Your task to perform on an android device: install app "Instagram" Image 0: 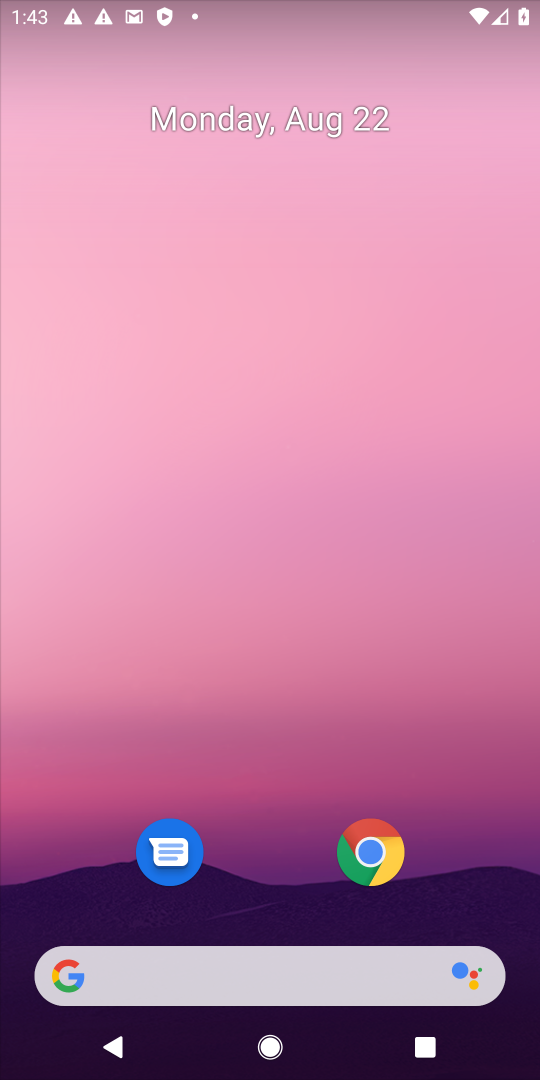
Step 0: drag from (307, 971) to (303, 12)
Your task to perform on an android device: install app "Instagram" Image 1: 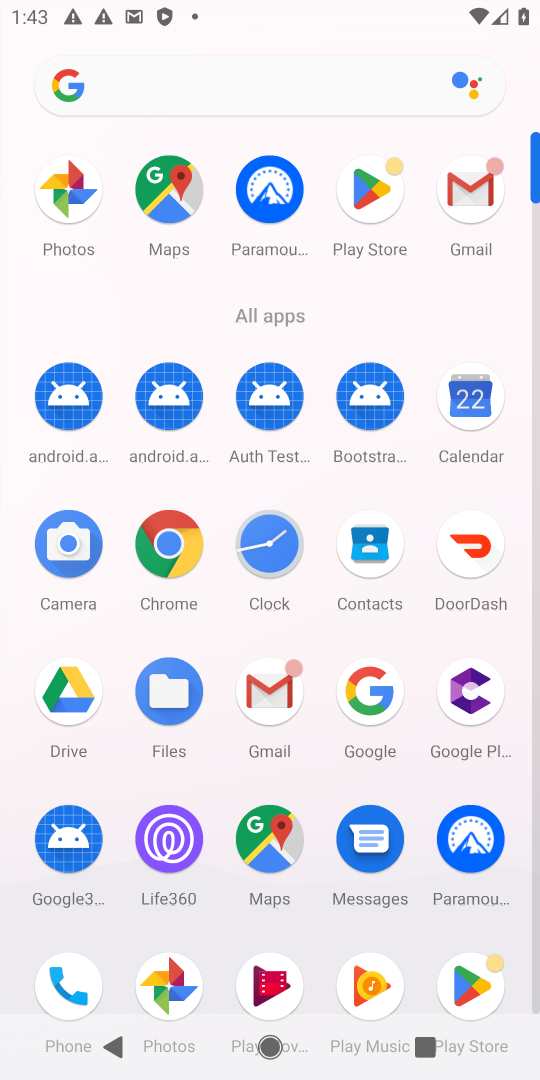
Step 1: click (364, 213)
Your task to perform on an android device: install app "Instagram" Image 2: 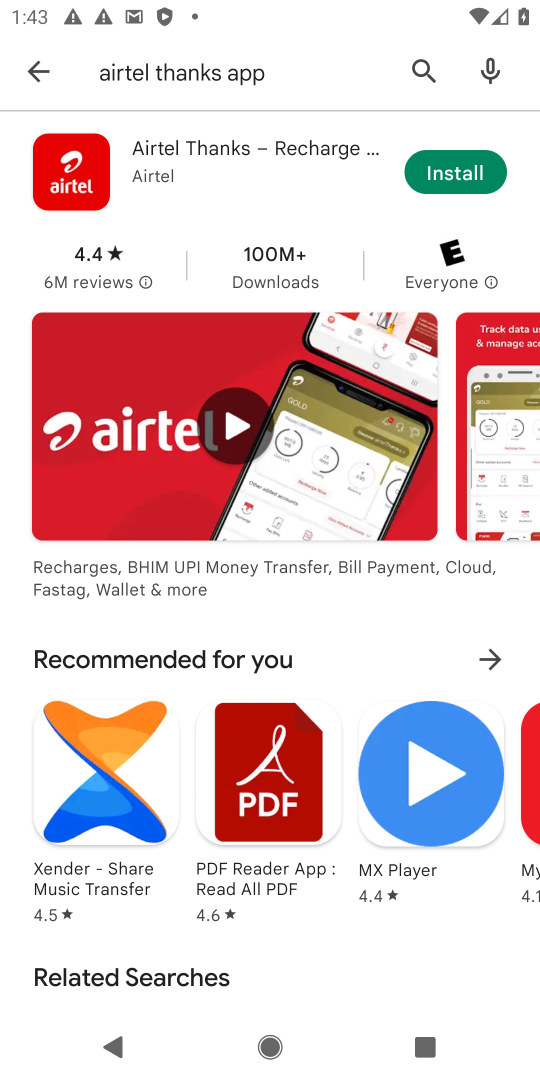
Step 2: click (428, 73)
Your task to perform on an android device: install app "Instagram" Image 3: 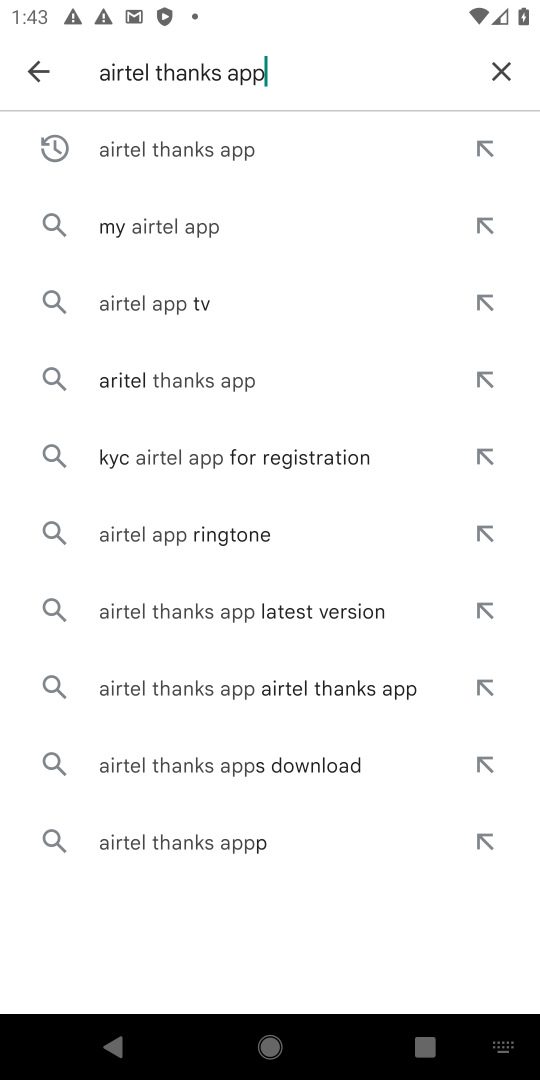
Step 3: click (520, 73)
Your task to perform on an android device: install app "Instagram" Image 4: 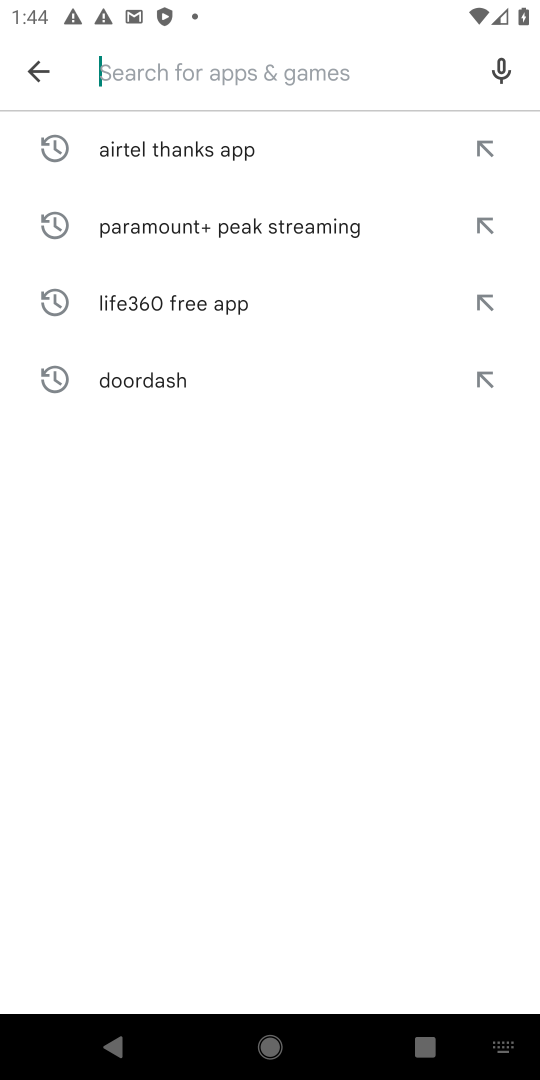
Step 4: type "instagram"
Your task to perform on an android device: install app "Instagram" Image 5: 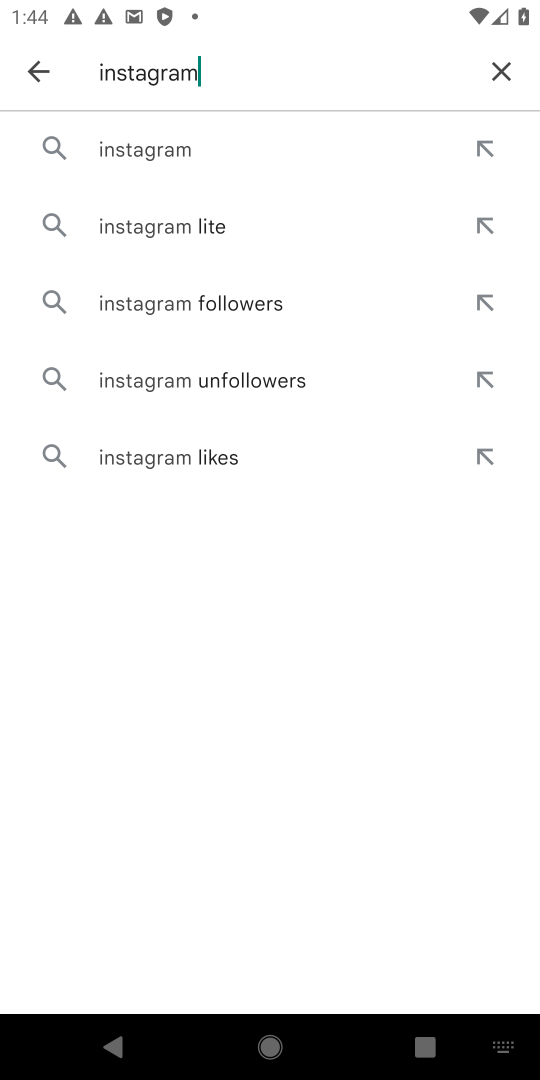
Step 5: click (163, 142)
Your task to perform on an android device: install app "Instagram" Image 6: 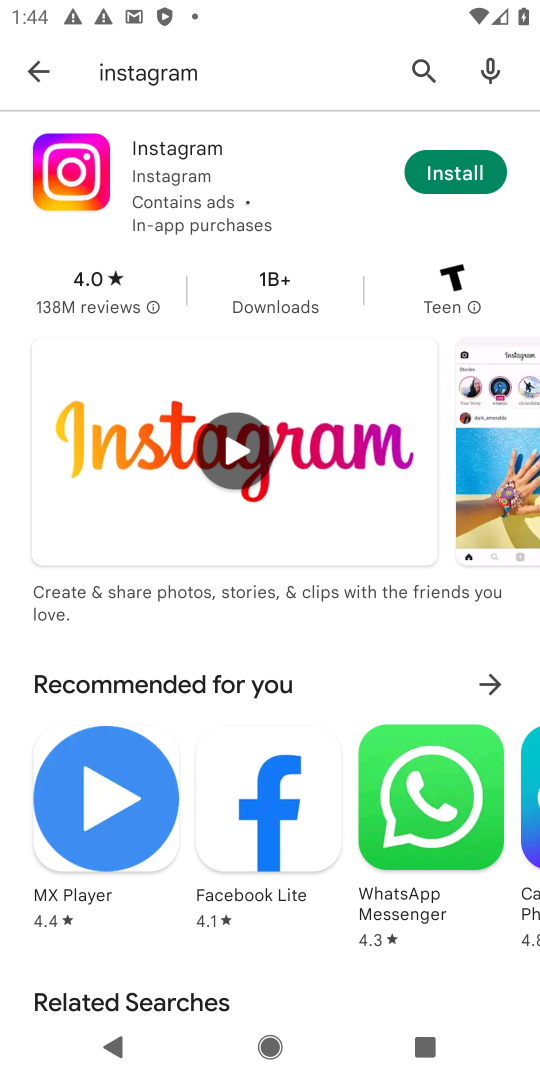
Step 6: click (442, 179)
Your task to perform on an android device: install app "Instagram" Image 7: 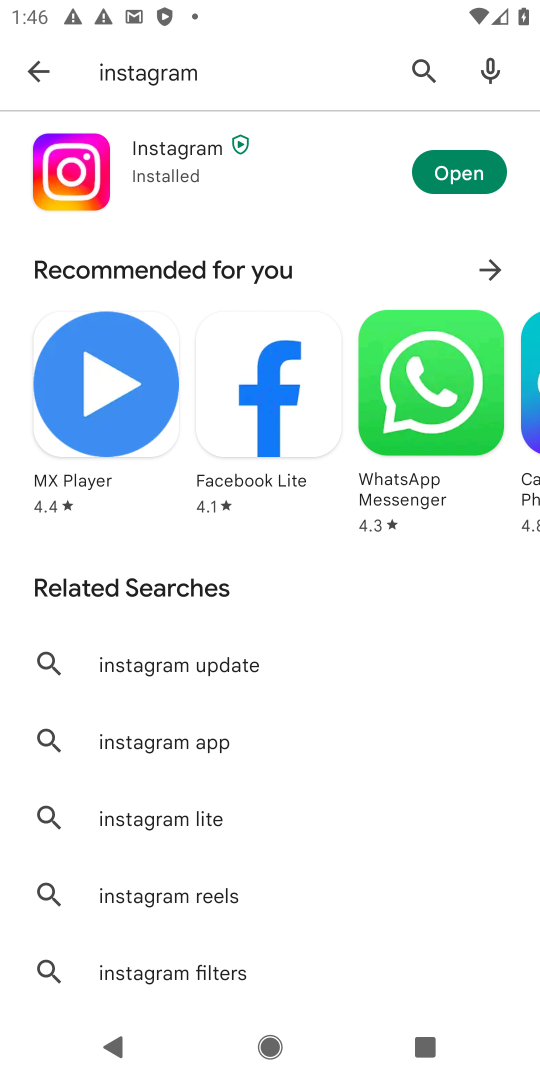
Step 7: task complete